Your task to perform on an android device: open the mobile data screen to see how much data has been used Image 0: 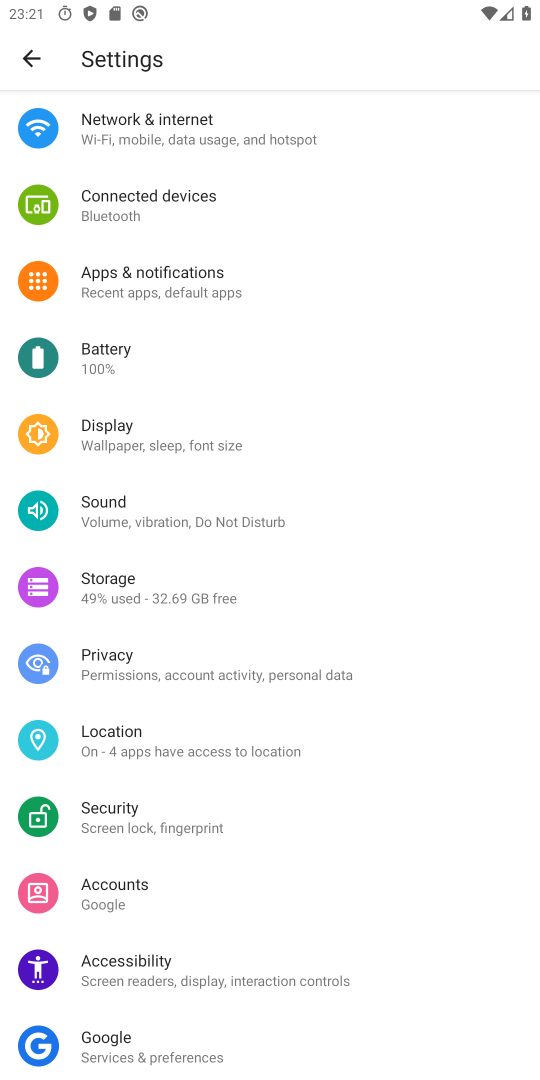
Step 0: press home button
Your task to perform on an android device: open the mobile data screen to see how much data has been used Image 1: 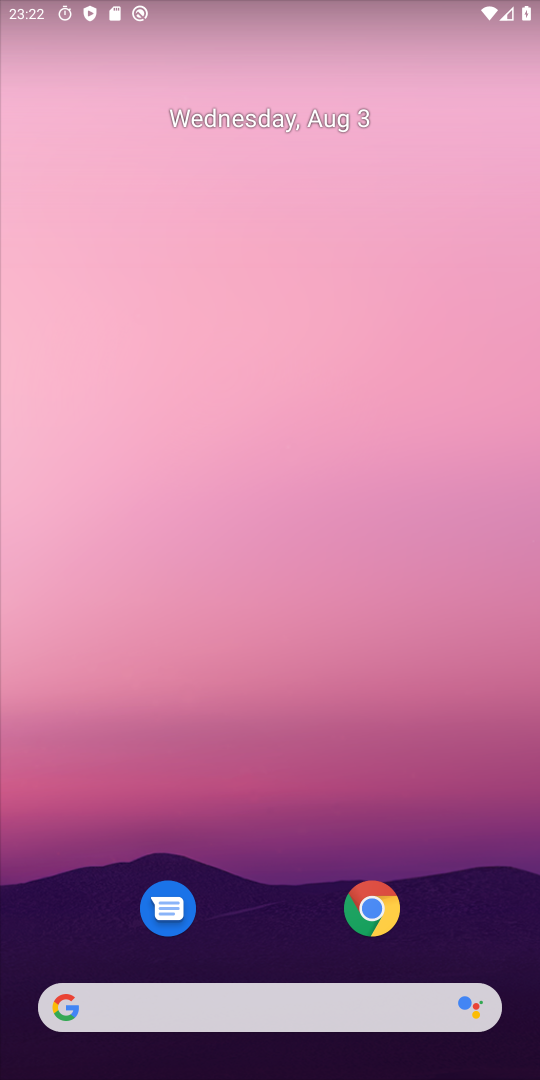
Step 1: drag from (403, 1058) to (191, 254)
Your task to perform on an android device: open the mobile data screen to see how much data has been used Image 2: 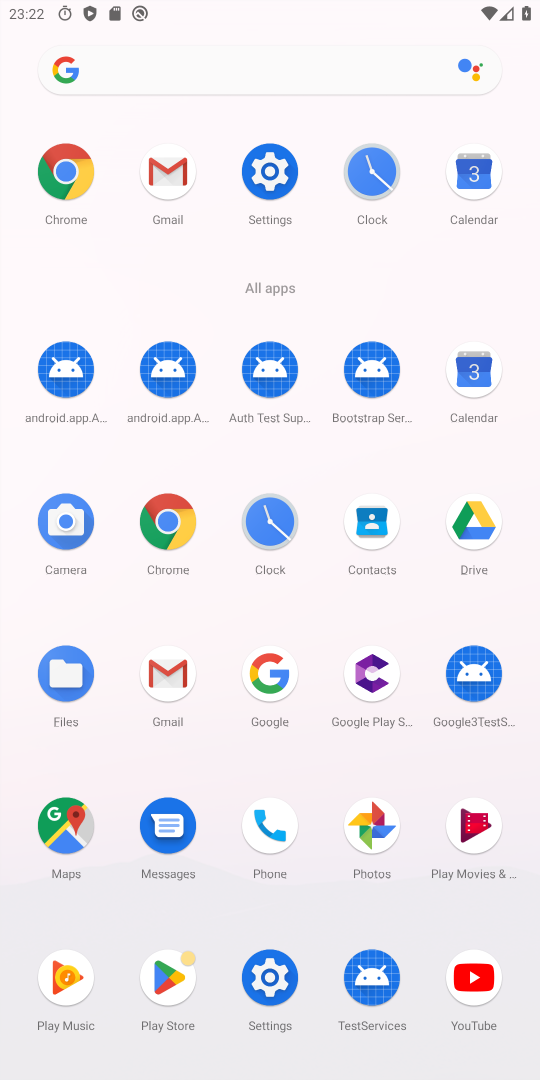
Step 2: click (251, 182)
Your task to perform on an android device: open the mobile data screen to see how much data has been used Image 3: 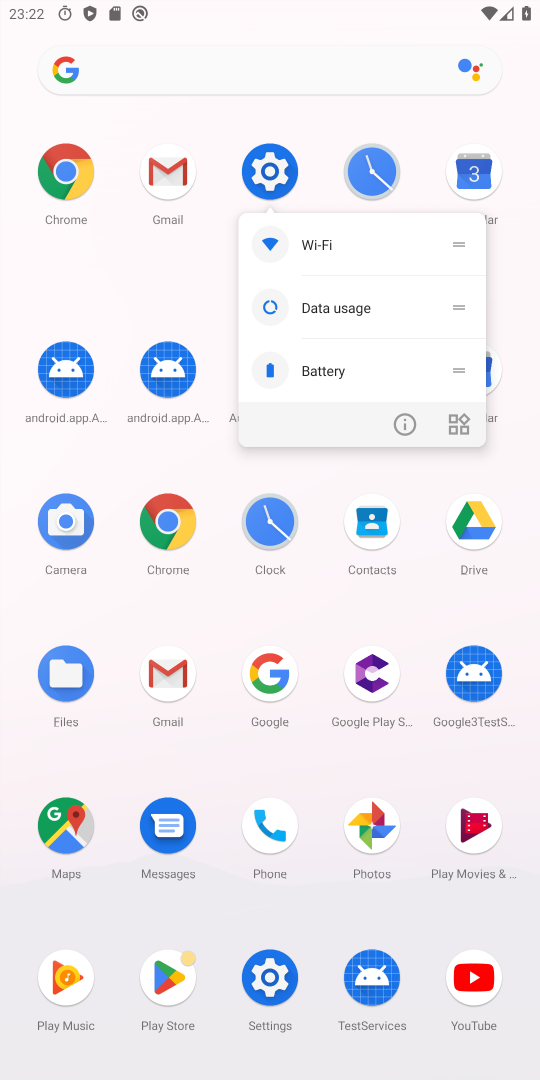
Step 3: click (251, 182)
Your task to perform on an android device: open the mobile data screen to see how much data has been used Image 4: 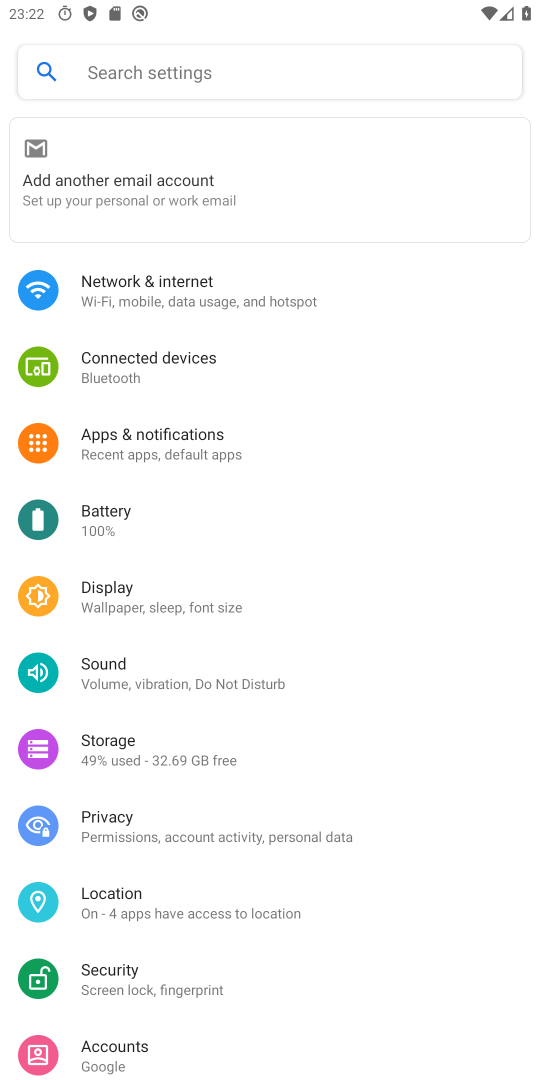
Step 4: click (186, 69)
Your task to perform on an android device: open the mobile data screen to see how much data has been used Image 5: 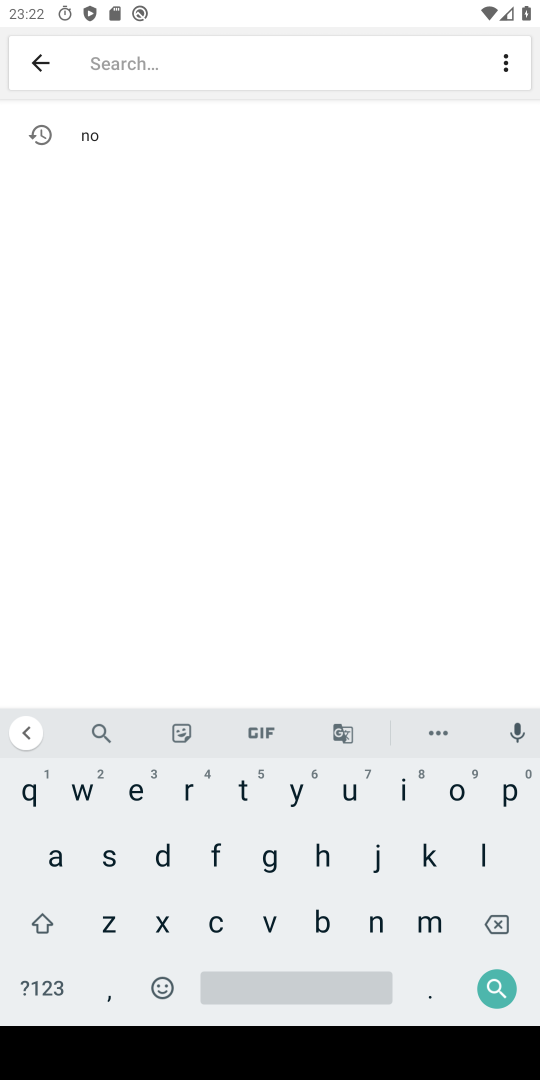
Step 5: click (163, 862)
Your task to perform on an android device: open the mobile data screen to see how much data has been used Image 6: 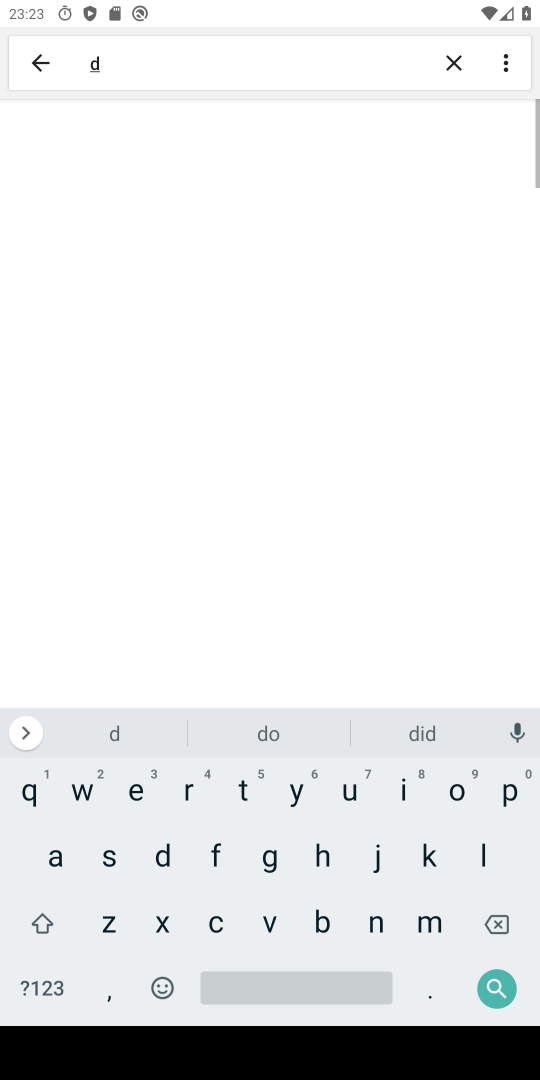
Step 6: click (50, 859)
Your task to perform on an android device: open the mobile data screen to see how much data has been used Image 7: 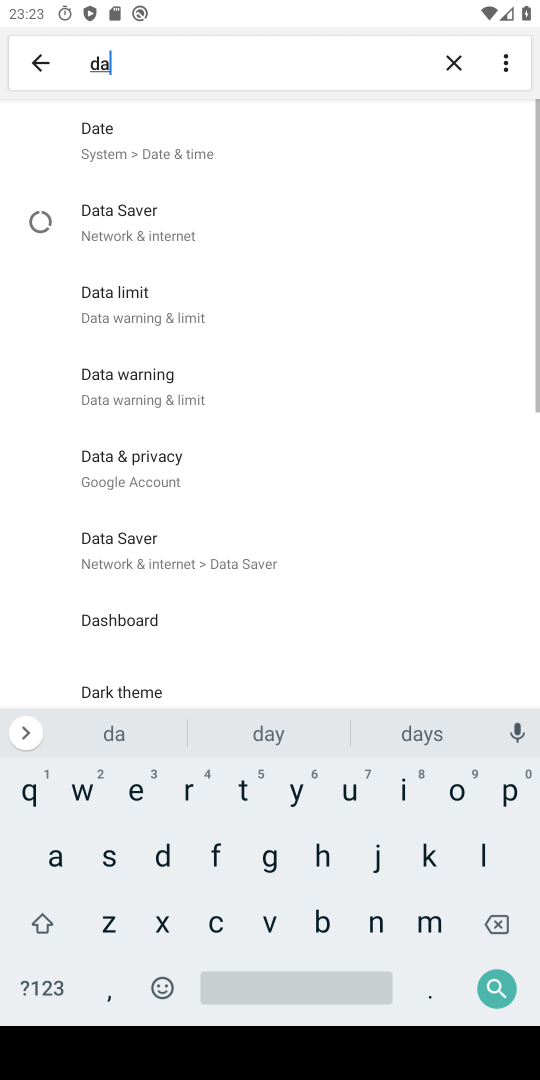
Step 7: click (246, 781)
Your task to perform on an android device: open the mobile data screen to see how much data has been used Image 8: 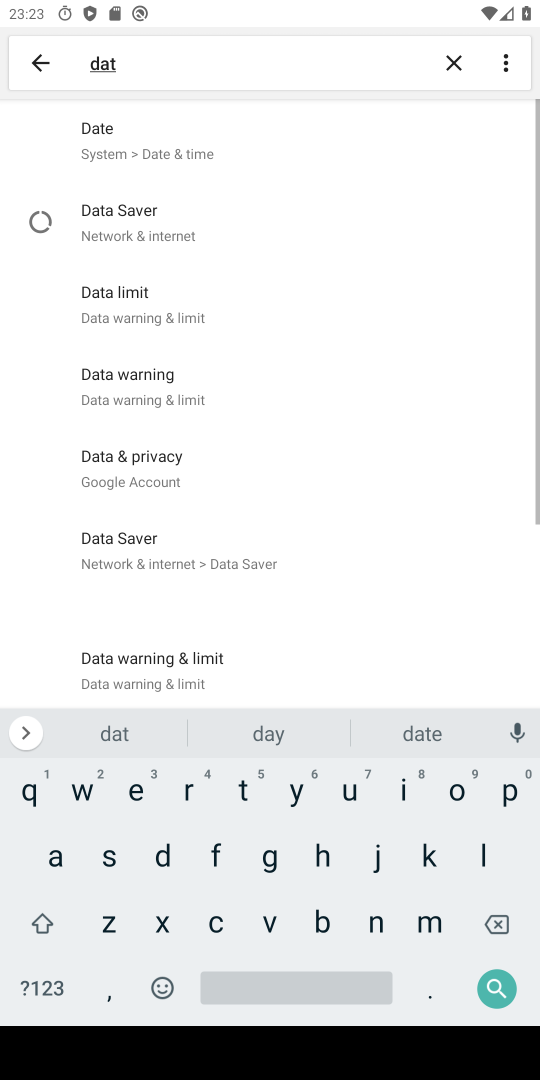
Step 8: click (42, 849)
Your task to perform on an android device: open the mobile data screen to see how much data has been used Image 9: 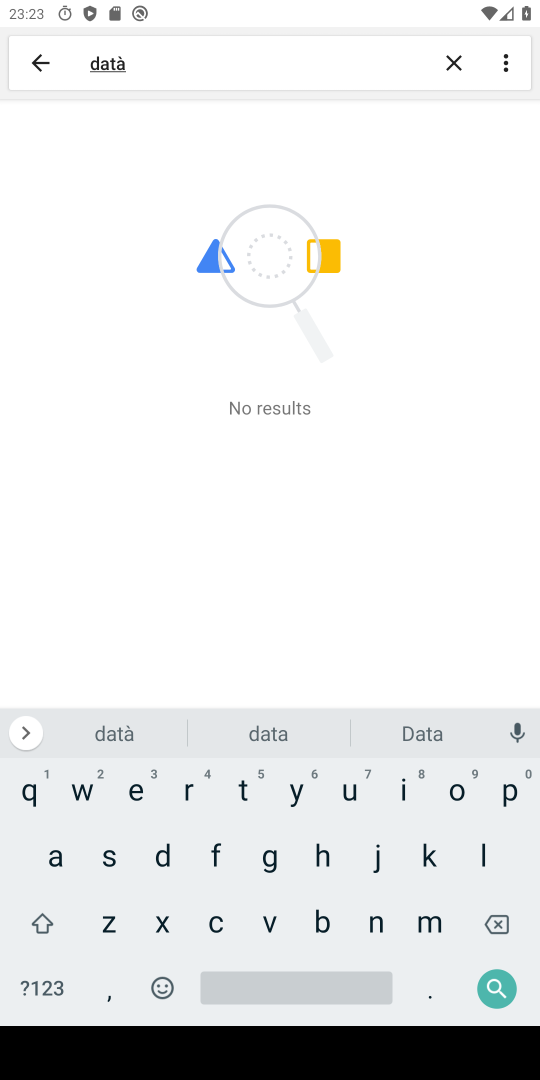
Step 9: click (301, 992)
Your task to perform on an android device: open the mobile data screen to see how much data has been used Image 10: 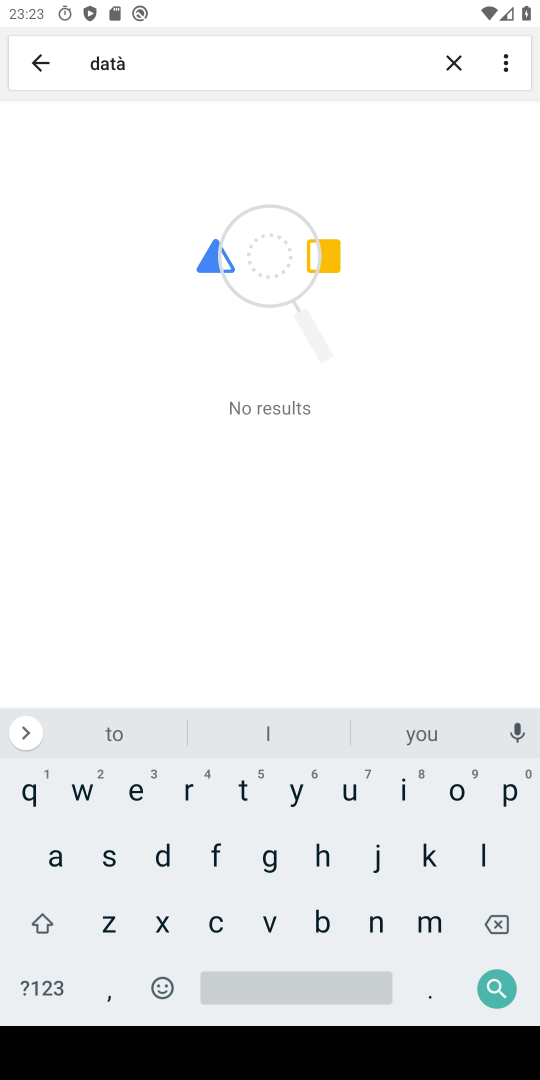
Step 10: click (497, 928)
Your task to perform on an android device: open the mobile data screen to see how much data has been used Image 11: 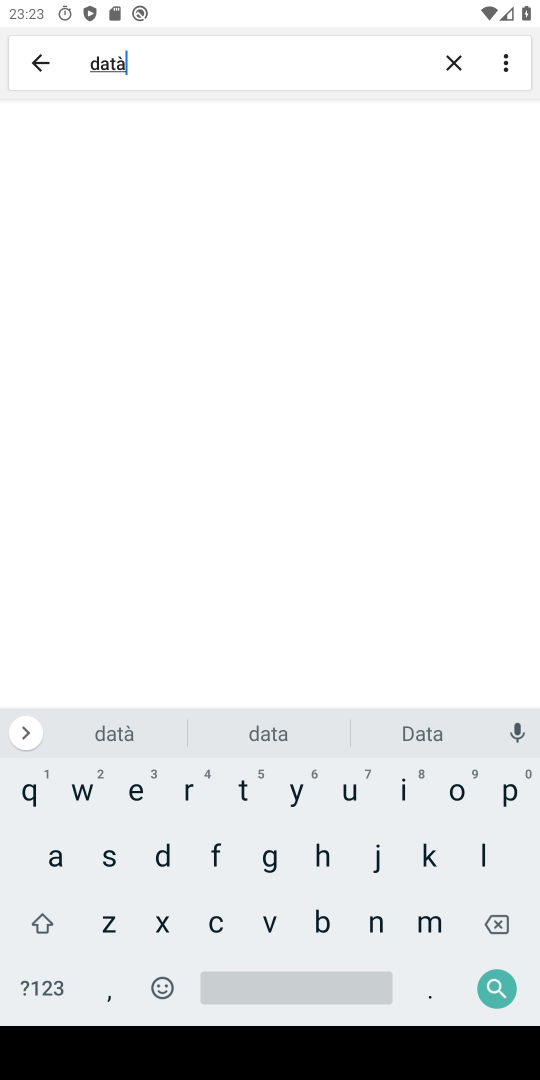
Step 11: click (497, 930)
Your task to perform on an android device: open the mobile data screen to see how much data has been used Image 12: 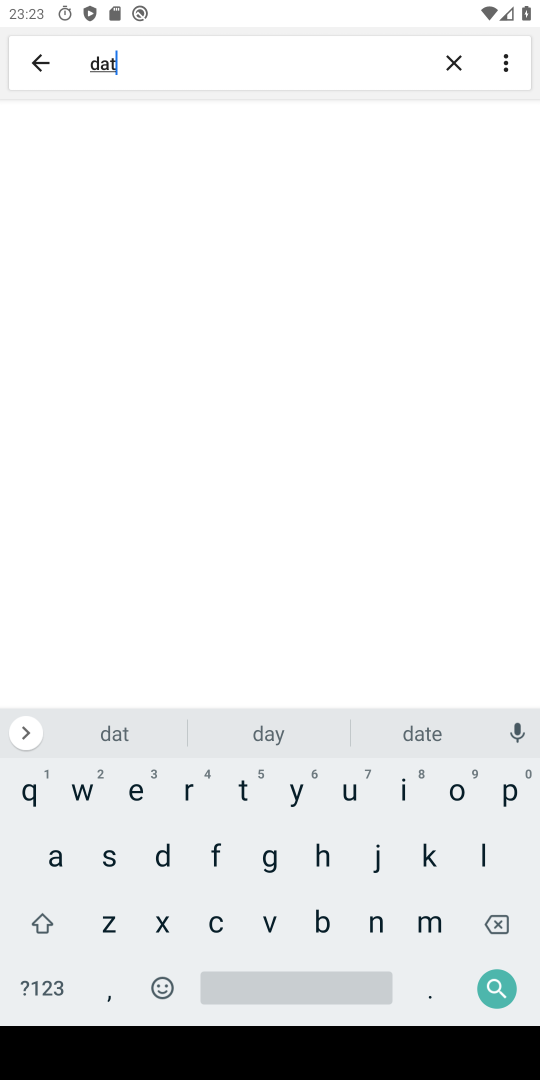
Step 12: click (497, 930)
Your task to perform on an android device: open the mobile data screen to see how much data has been used Image 13: 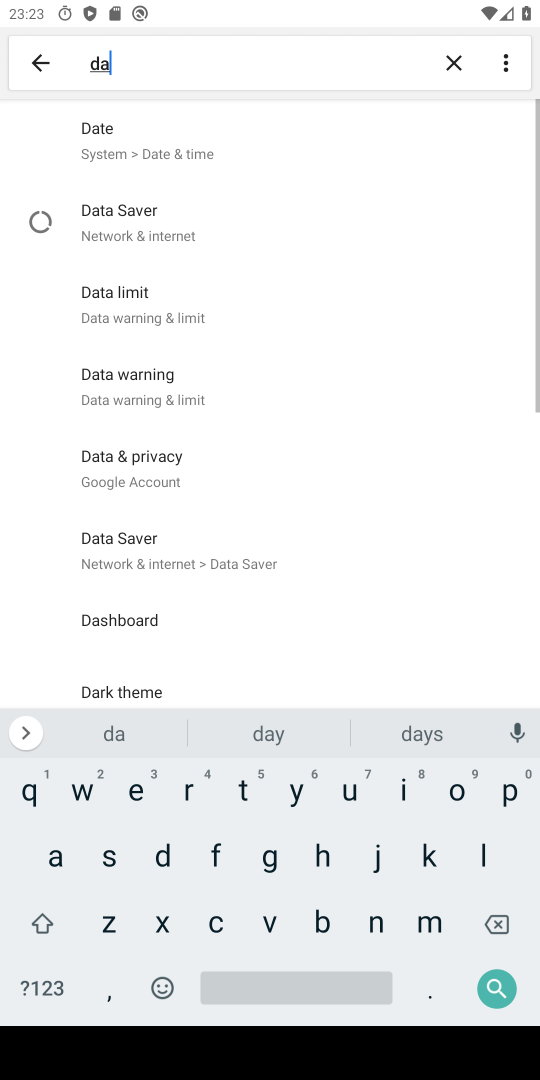
Step 13: click (243, 784)
Your task to perform on an android device: open the mobile data screen to see how much data has been used Image 14: 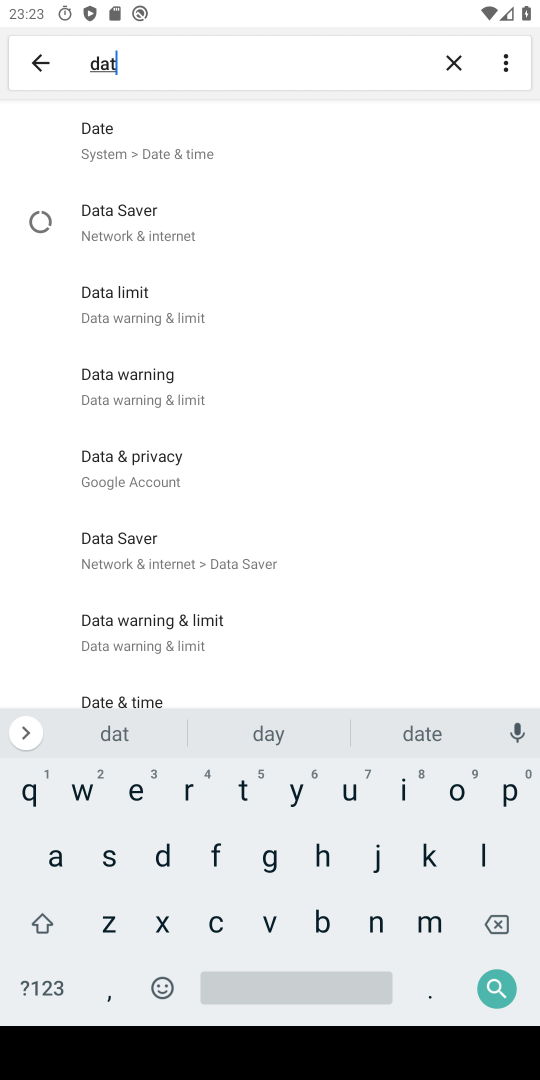
Step 14: click (29, 866)
Your task to perform on an android device: open the mobile data screen to see how much data has been used Image 15: 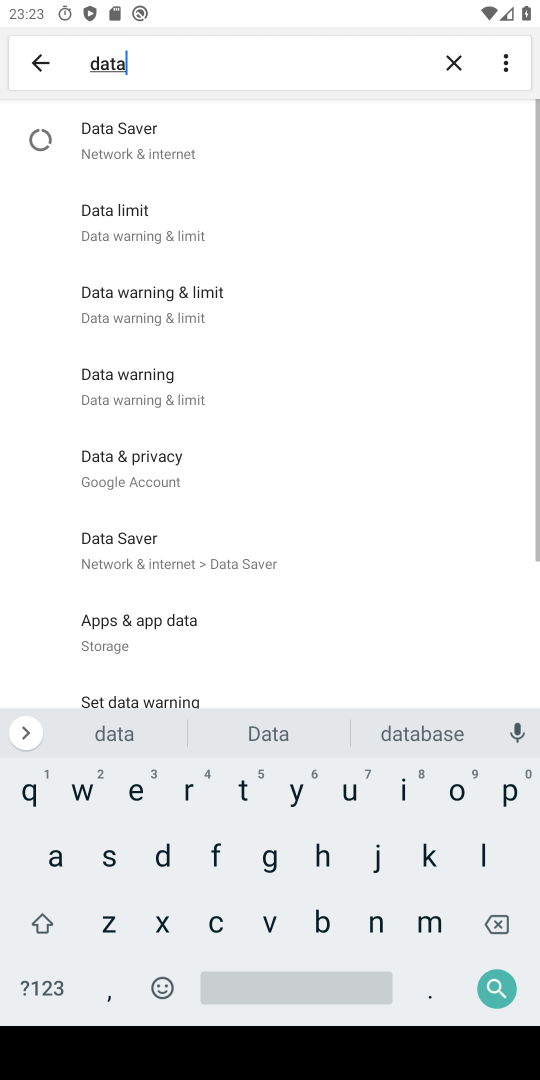
Step 15: click (303, 995)
Your task to perform on an android device: open the mobile data screen to see how much data has been used Image 16: 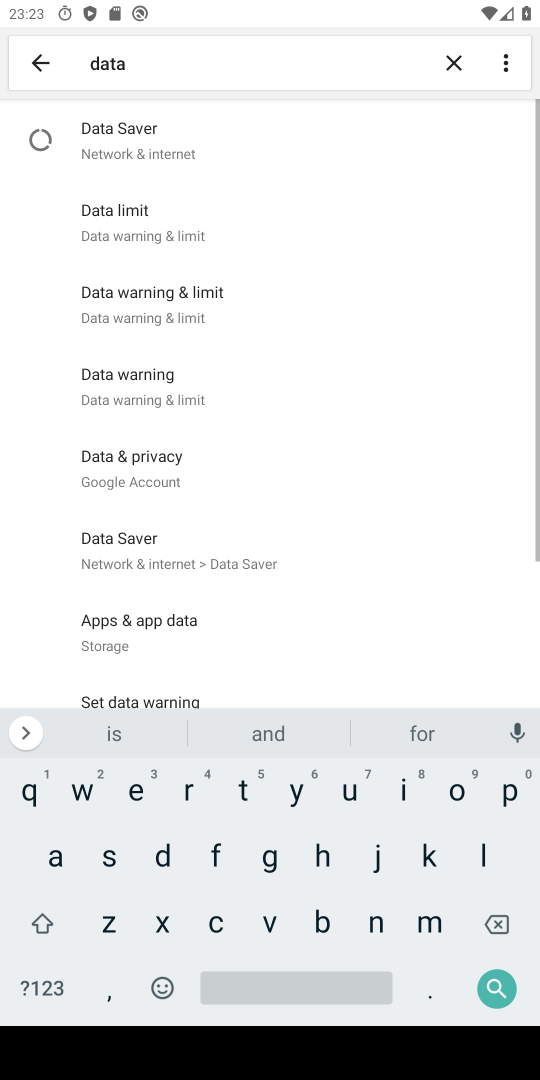
Step 16: click (353, 799)
Your task to perform on an android device: open the mobile data screen to see how much data has been used Image 17: 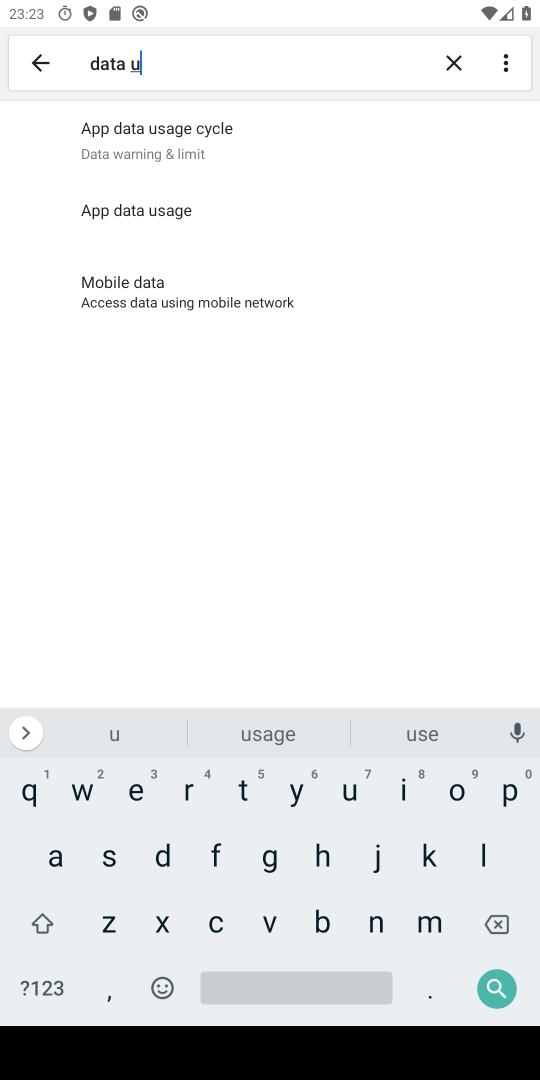
Step 17: click (169, 221)
Your task to perform on an android device: open the mobile data screen to see how much data has been used Image 18: 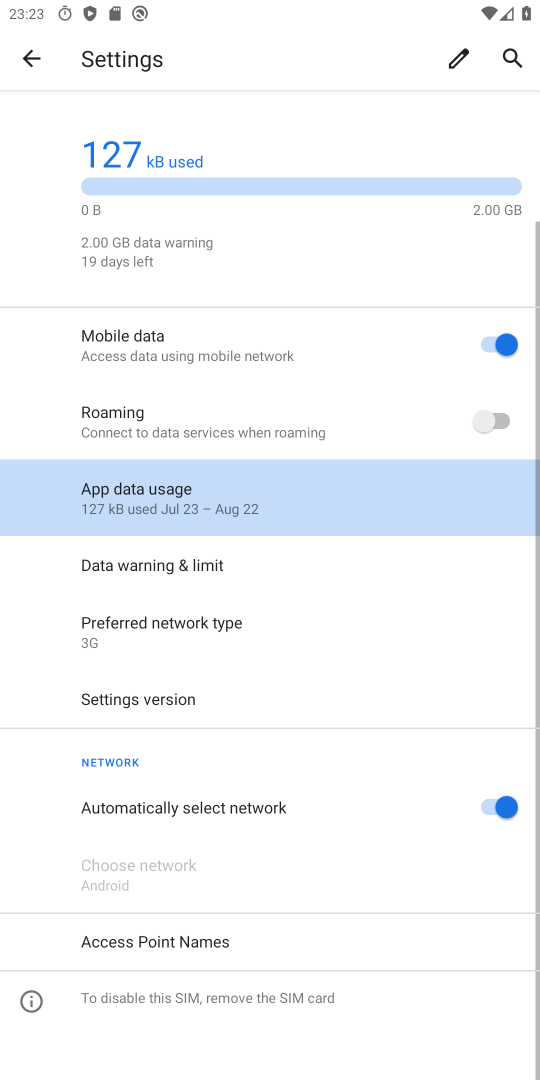
Step 18: click (232, 523)
Your task to perform on an android device: open the mobile data screen to see how much data has been used Image 19: 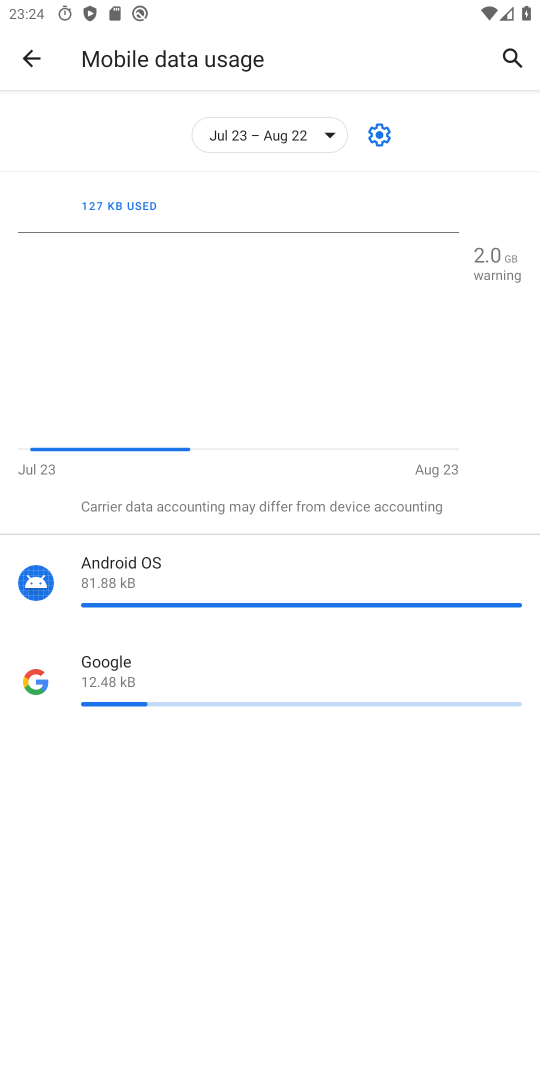
Step 19: task complete